Your task to perform on an android device: Go to accessibility settings Image 0: 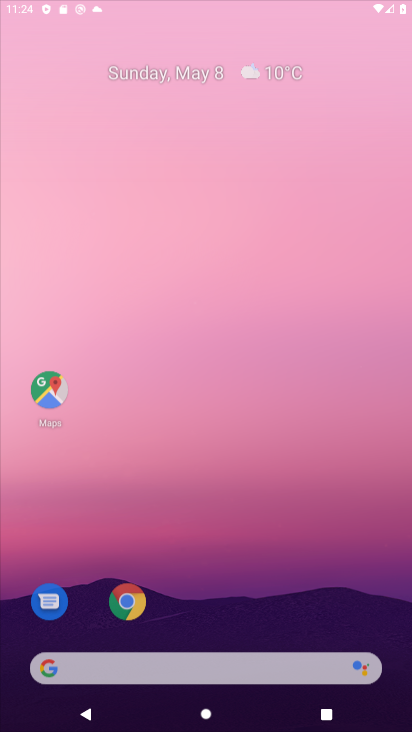
Step 0: click (117, 608)
Your task to perform on an android device: Go to accessibility settings Image 1: 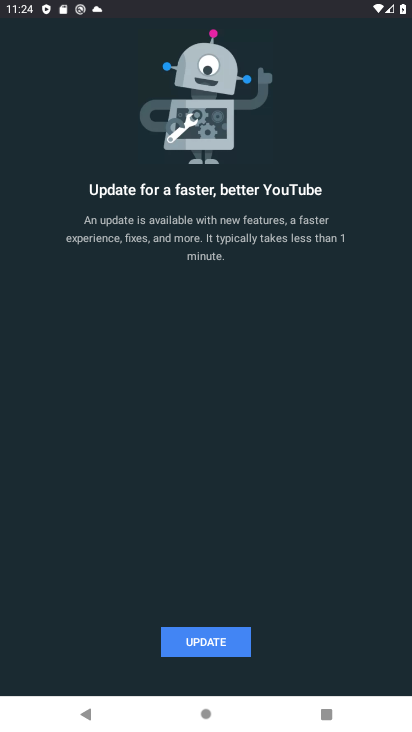
Step 1: click (200, 643)
Your task to perform on an android device: Go to accessibility settings Image 2: 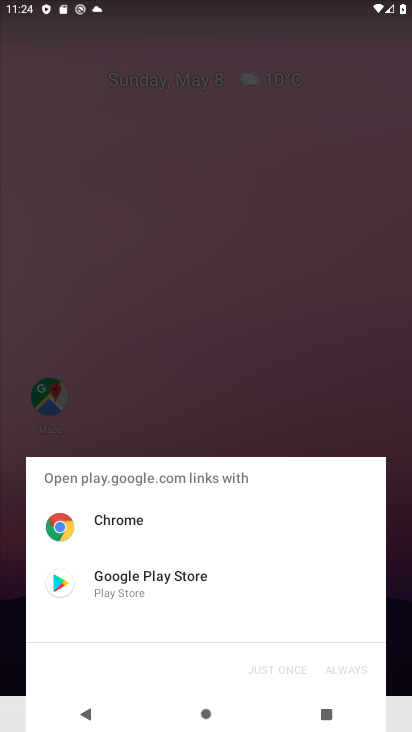
Step 2: click (135, 532)
Your task to perform on an android device: Go to accessibility settings Image 3: 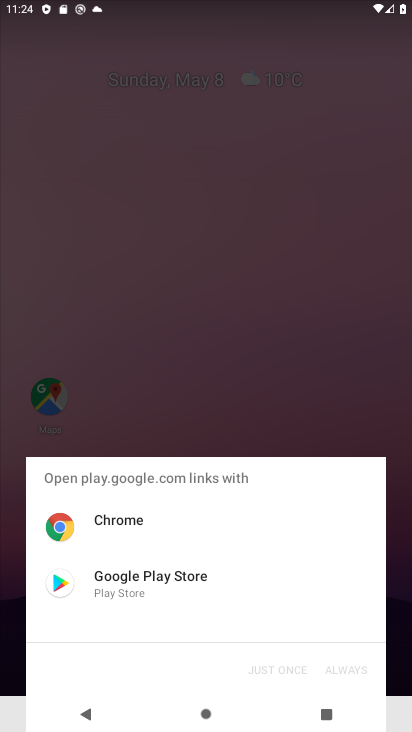
Step 3: click (135, 532)
Your task to perform on an android device: Go to accessibility settings Image 4: 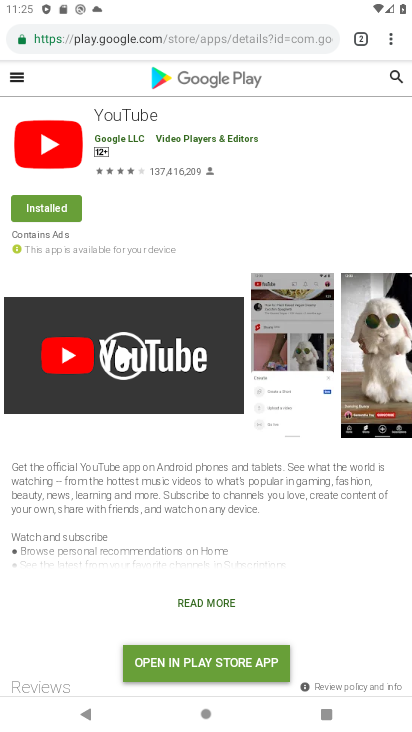
Step 4: press home button
Your task to perform on an android device: Go to accessibility settings Image 5: 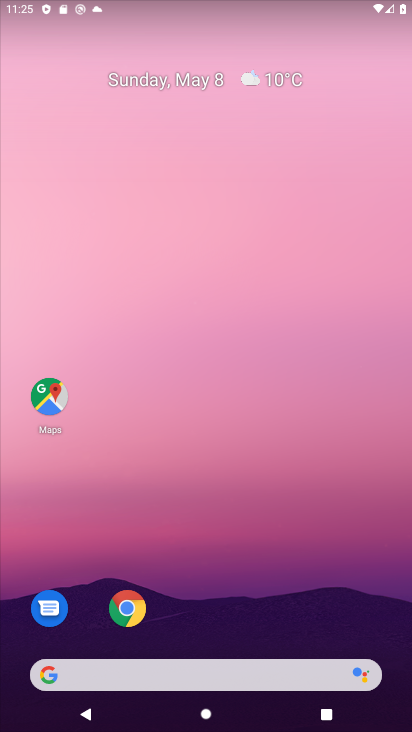
Step 5: drag from (275, 577) to (280, 284)
Your task to perform on an android device: Go to accessibility settings Image 6: 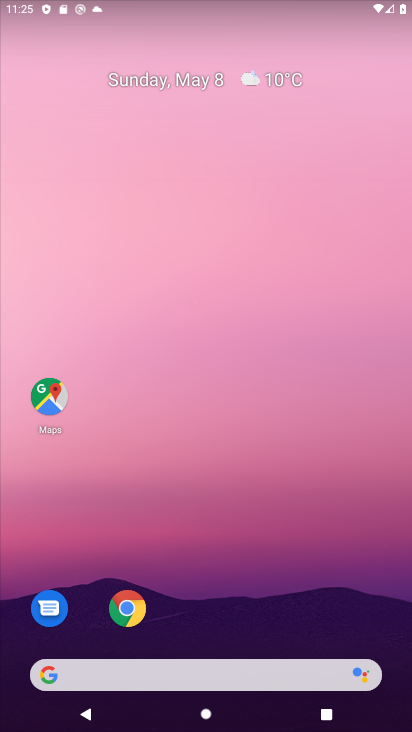
Step 6: drag from (226, 578) to (261, 163)
Your task to perform on an android device: Go to accessibility settings Image 7: 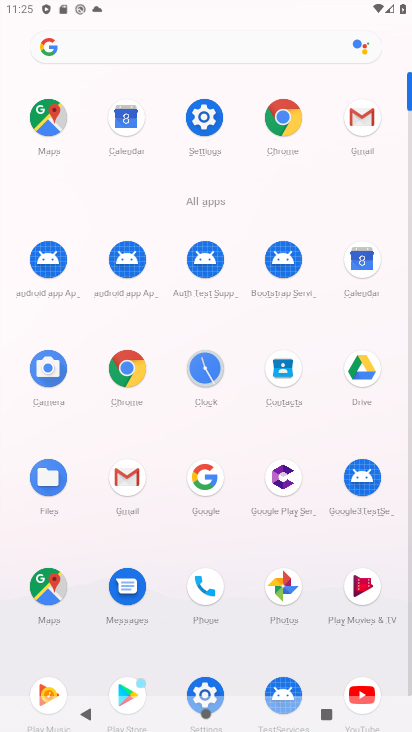
Step 7: click (198, 124)
Your task to perform on an android device: Go to accessibility settings Image 8: 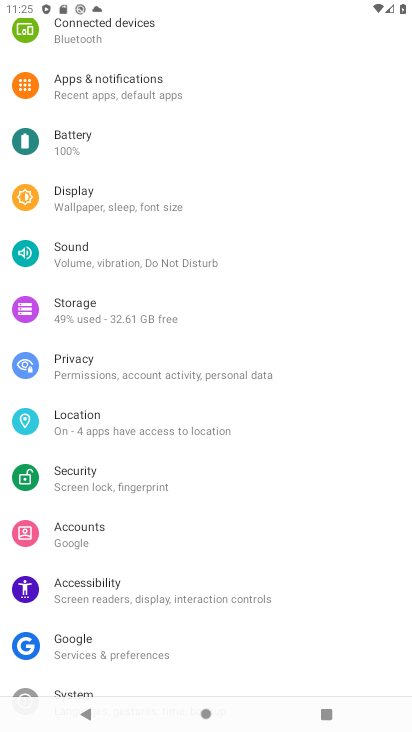
Step 8: click (146, 583)
Your task to perform on an android device: Go to accessibility settings Image 9: 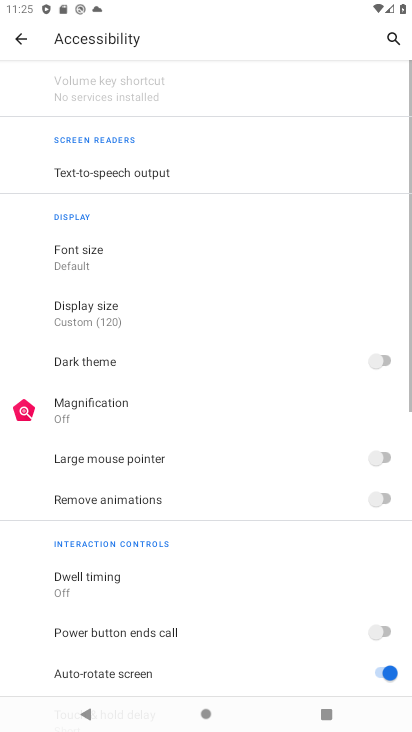
Step 9: task complete